Your task to perform on an android device: What's the weather today? Image 0: 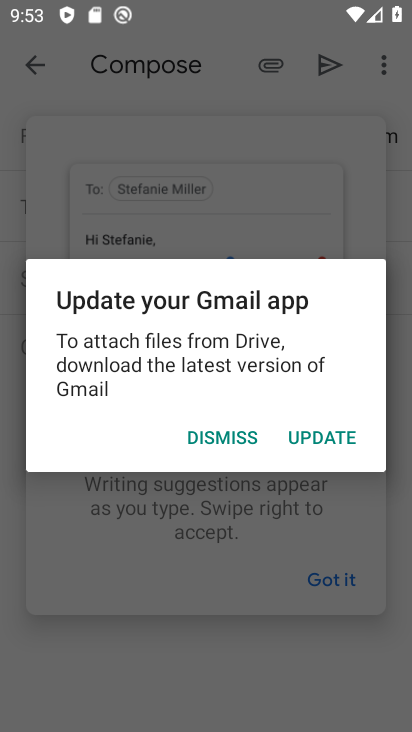
Step 0: press home button
Your task to perform on an android device: What's the weather today? Image 1: 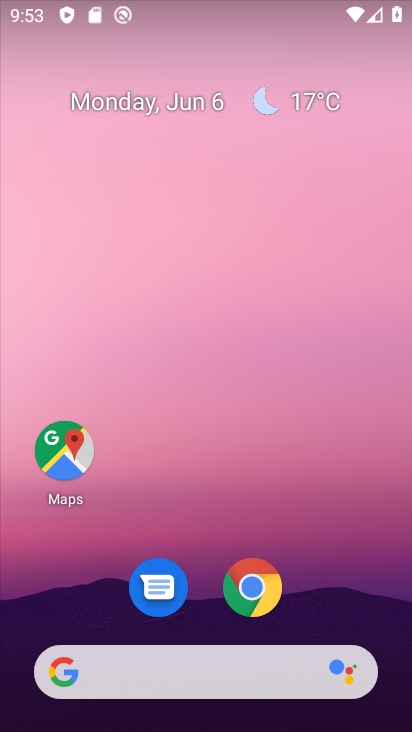
Step 1: drag from (357, 621) to (303, 175)
Your task to perform on an android device: What's the weather today? Image 2: 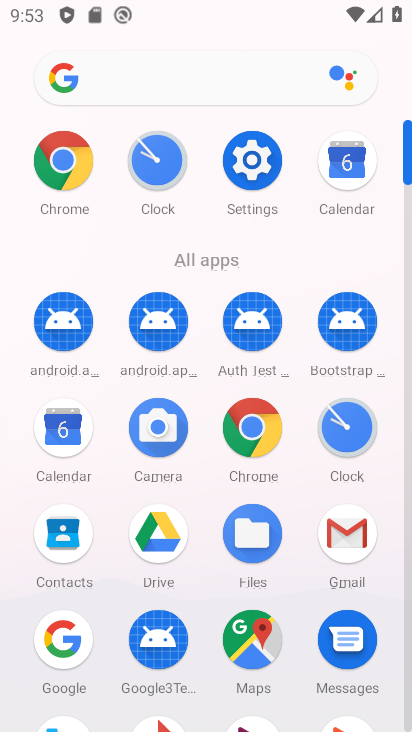
Step 2: click (157, 76)
Your task to perform on an android device: What's the weather today? Image 3: 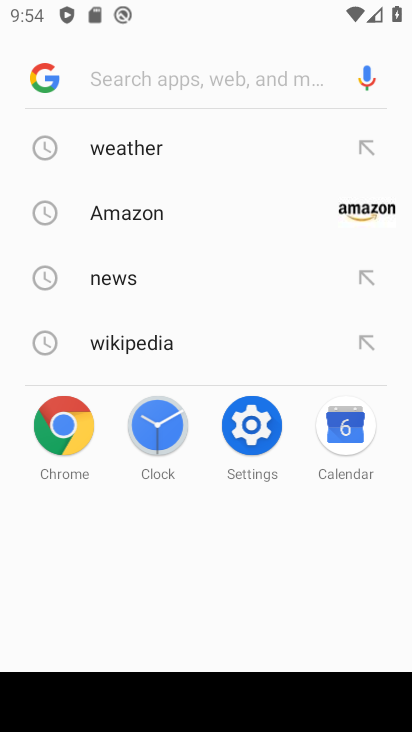
Step 3: click (105, 160)
Your task to perform on an android device: What's the weather today? Image 4: 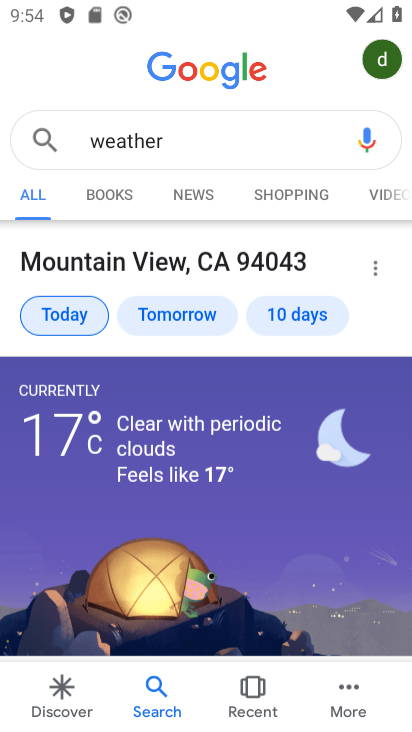
Step 4: task complete